Your task to perform on an android device: toggle pop-ups in chrome Image 0: 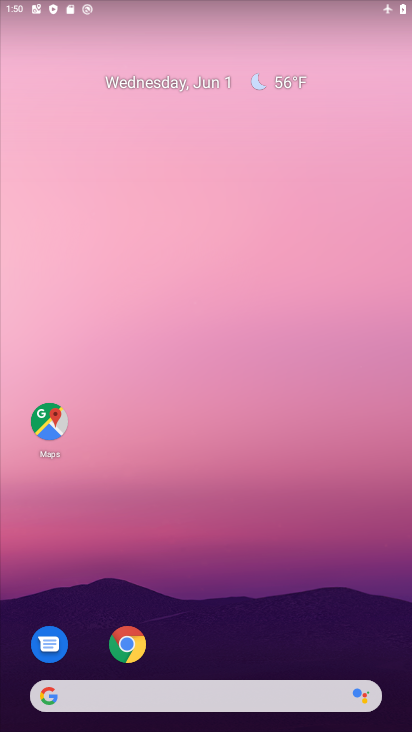
Step 0: drag from (381, 579) to (235, 18)
Your task to perform on an android device: toggle pop-ups in chrome Image 1: 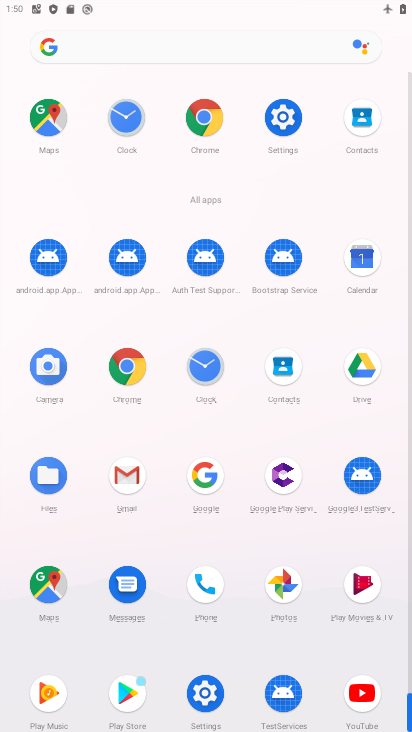
Step 1: drag from (12, 494) to (18, 172)
Your task to perform on an android device: toggle pop-ups in chrome Image 2: 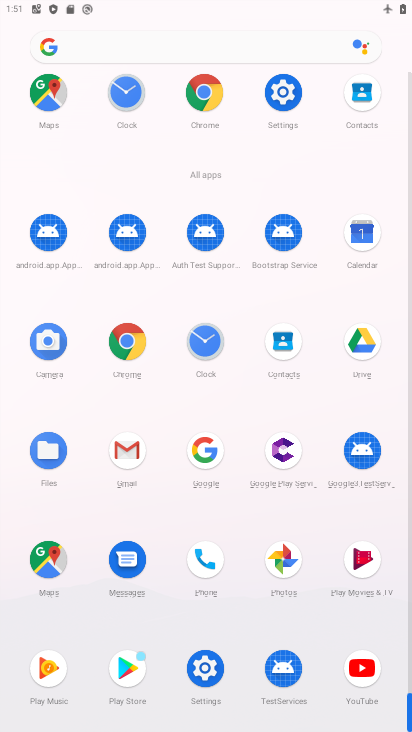
Step 2: click (203, 86)
Your task to perform on an android device: toggle pop-ups in chrome Image 3: 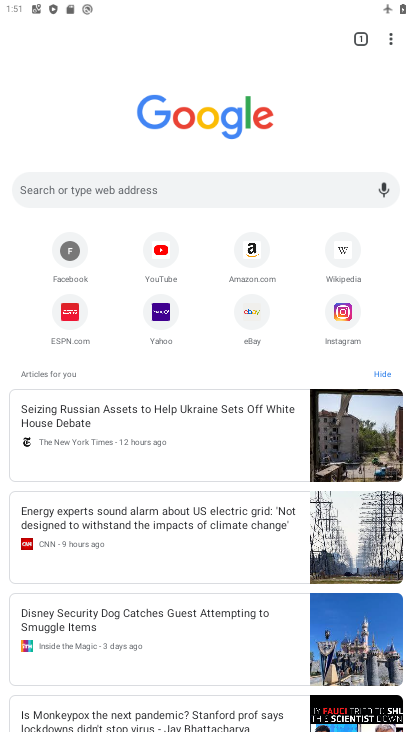
Step 3: drag from (390, 36) to (283, 326)
Your task to perform on an android device: toggle pop-ups in chrome Image 4: 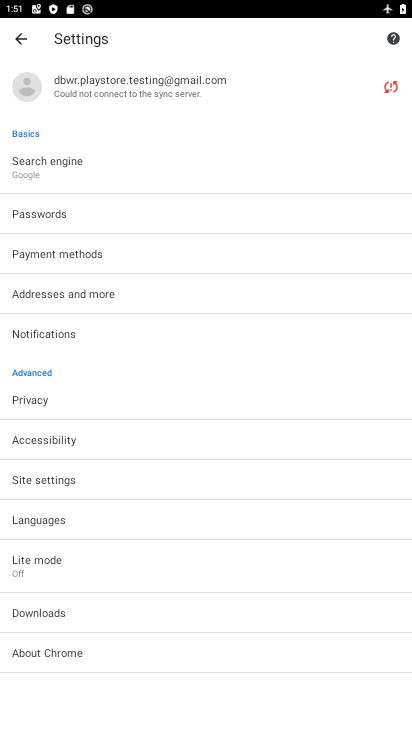
Step 4: drag from (240, 579) to (191, 273)
Your task to perform on an android device: toggle pop-ups in chrome Image 5: 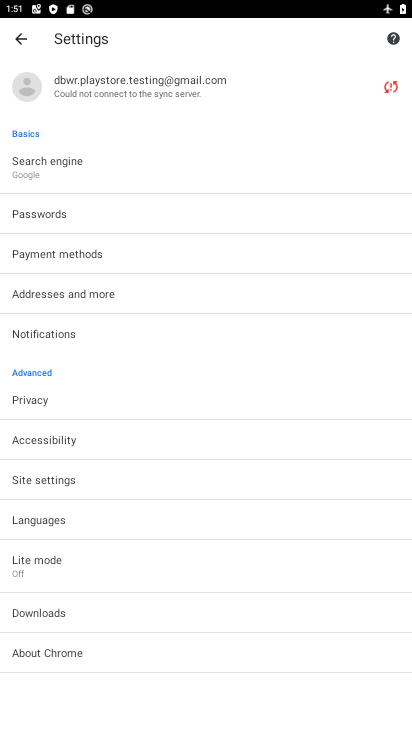
Step 5: drag from (242, 569) to (202, 183)
Your task to perform on an android device: toggle pop-ups in chrome Image 6: 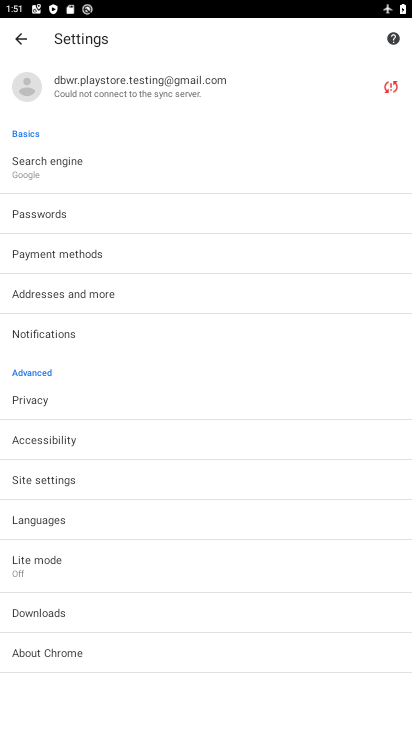
Step 6: click (73, 480)
Your task to perform on an android device: toggle pop-ups in chrome Image 7: 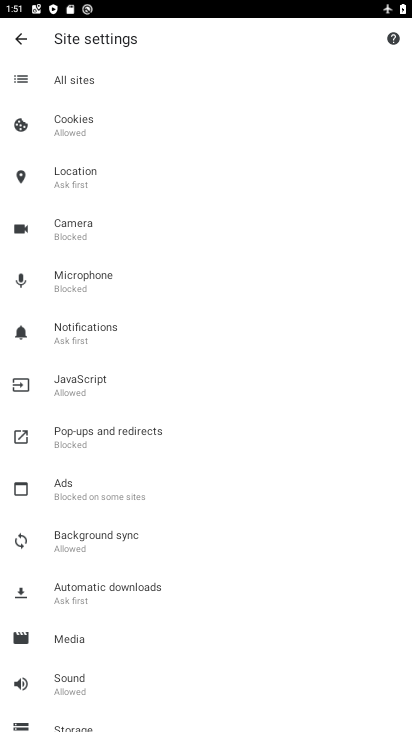
Step 7: click (105, 436)
Your task to perform on an android device: toggle pop-ups in chrome Image 8: 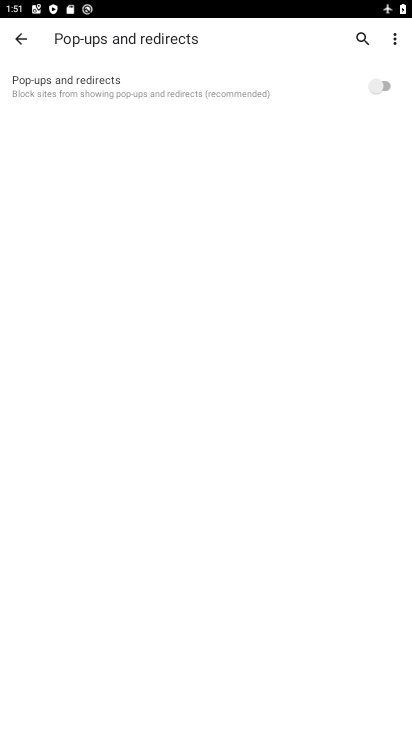
Step 8: click (373, 79)
Your task to perform on an android device: toggle pop-ups in chrome Image 9: 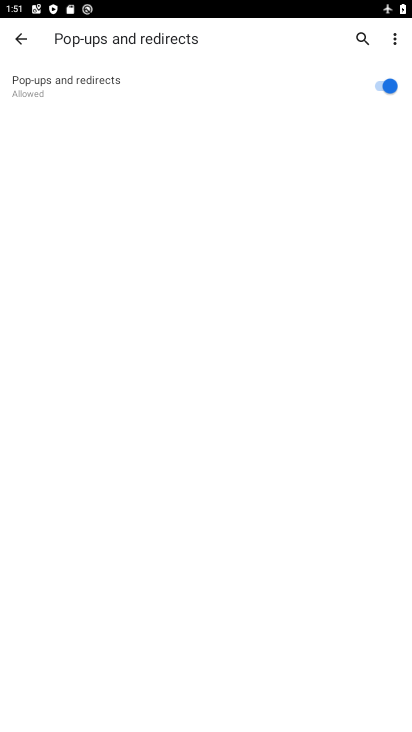
Step 9: task complete